Your task to perform on an android device: Do I have any events tomorrow? Image 0: 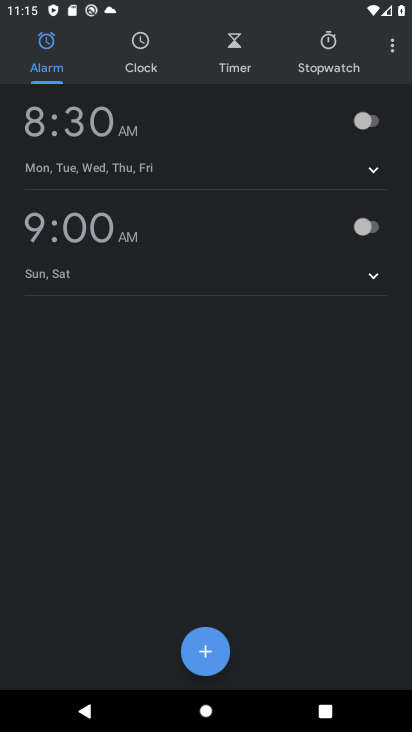
Step 0: press home button
Your task to perform on an android device: Do I have any events tomorrow? Image 1: 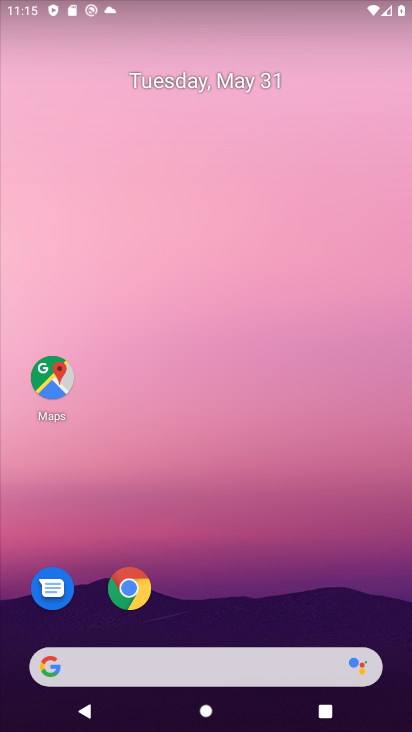
Step 1: drag from (203, 628) to (309, 194)
Your task to perform on an android device: Do I have any events tomorrow? Image 2: 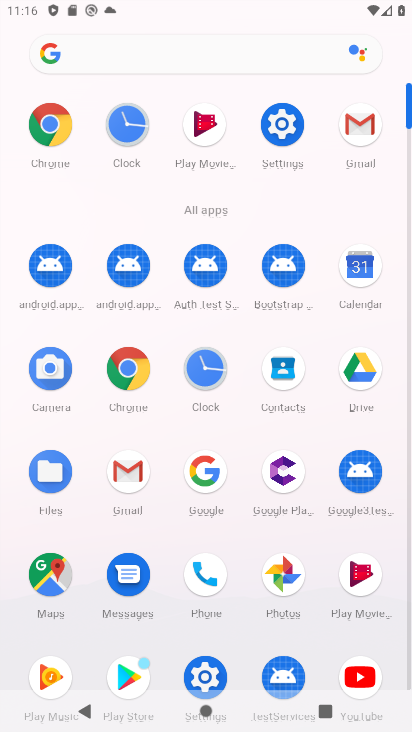
Step 2: click (360, 276)
Your task to perform on an android device: Do I have any events tomorrow? Image 3: 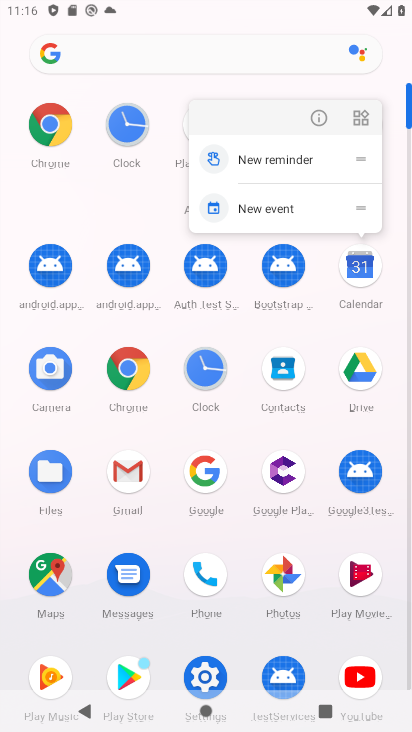
Step 3: click (325, 118)
Your task to perform on an android device: Do I have any events tomorrow? Image 4: 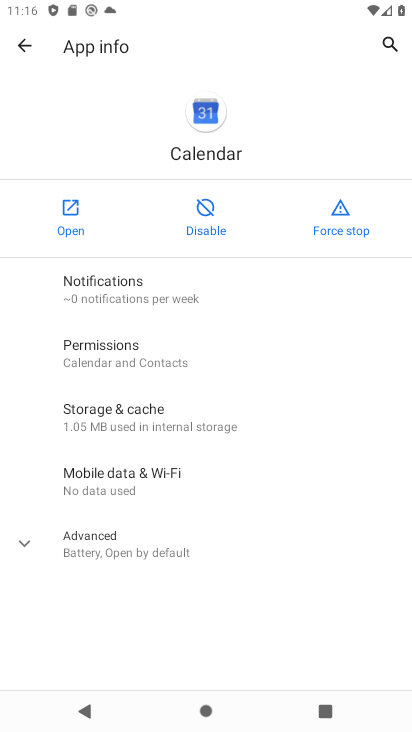
Step 4: click (75, 235)
Your task to perform on an android device: Do I have any events tomorrow? Image 5: 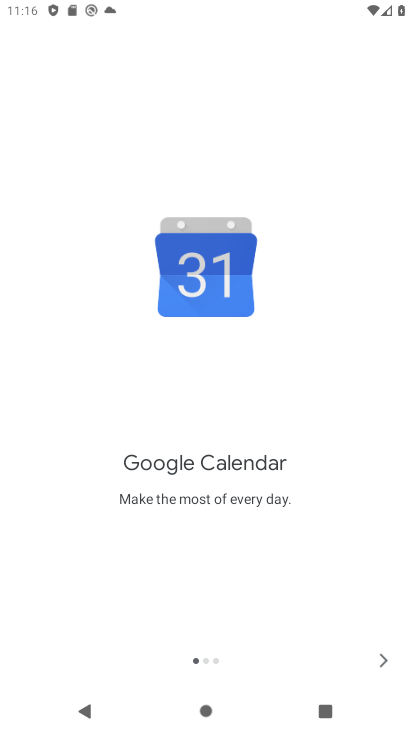
Step 5: click (382, 662)
Your task to perform on an android device: Do I have any events tomorrow? Image 6: 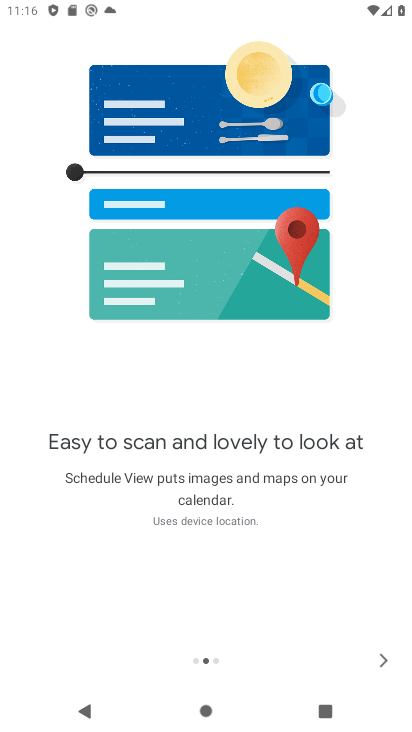
Step 6: click (382, 661)
Your task to perform on an android device: Do I have any events tomorrow? Image 7: 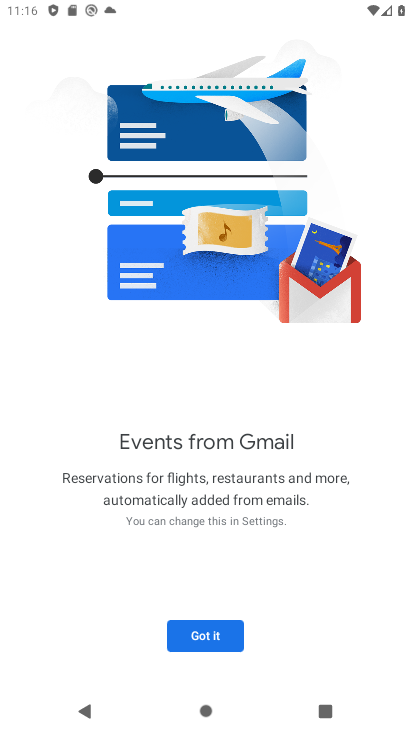
Step 7: click (182, 645)
Your task to perform on an android device: Do I have any events tomorrow? Image 8: 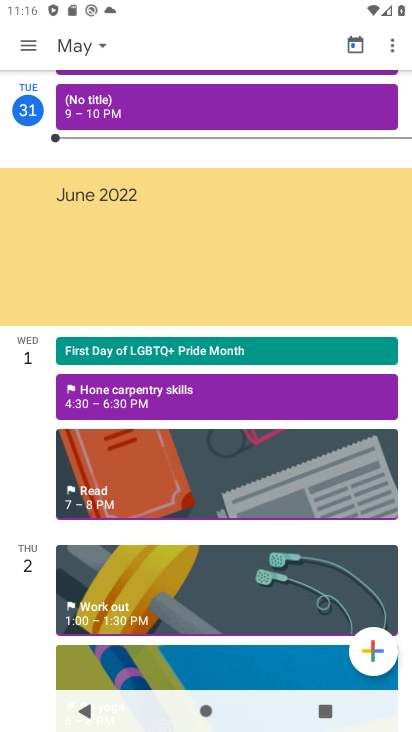
Step 8: click (79, 49)
Your task to perform on an android device: Do I have any events tomorrow? Image 9: 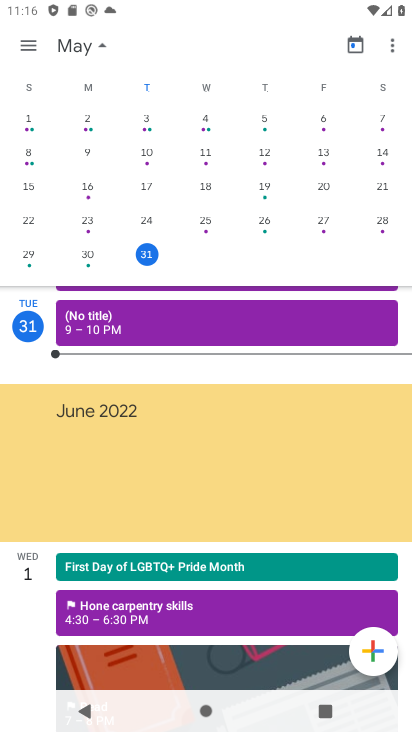
Step 9: drag from (376, 222) to (69, 205)
Your task to perform on an android device: Do I have any events tomorrow? Image 10: 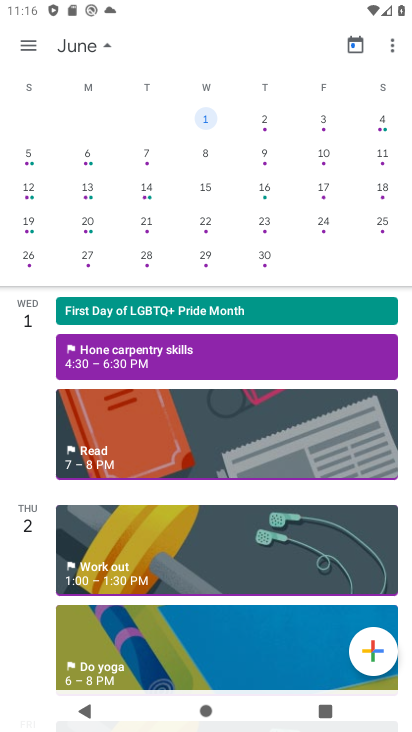
Step 10: click (258, 113)
Your task to perform on an android device: Do I have any events tomorrow? Image 11: 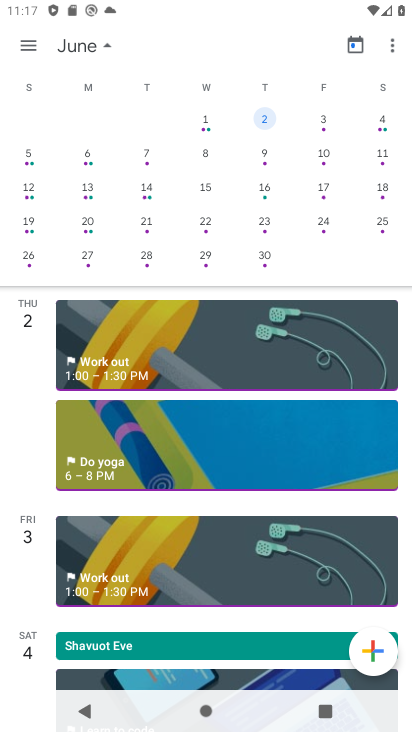
Step 11: task complete